Your task to perform on an android device: See recent photos Image 0: 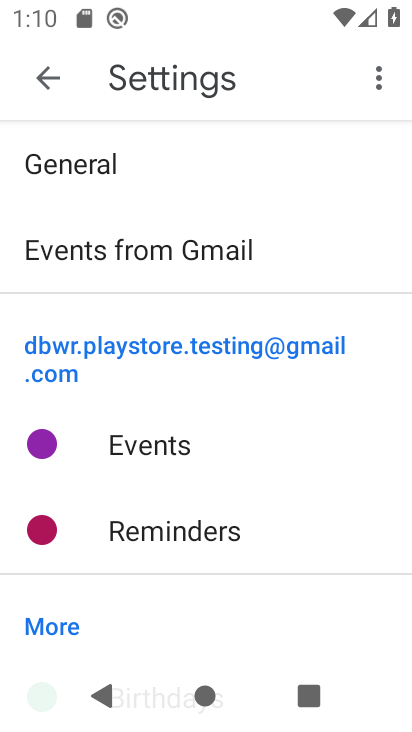
Step 0: press home button
Your task to perform on an android device: See recent photos Image 1: 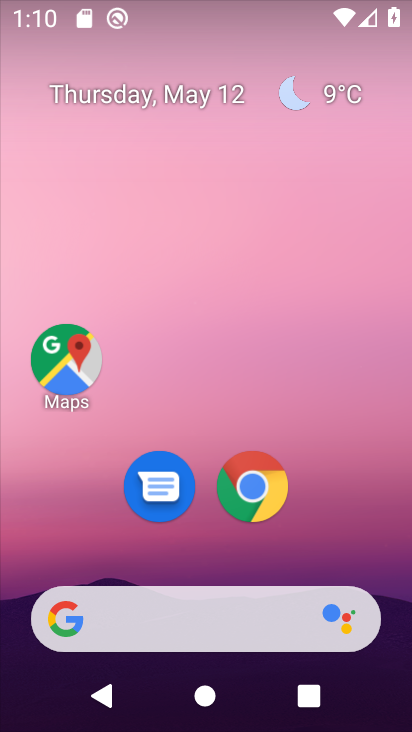
Step 1: drag from (135, 586) to (203, 133)
Your task to perform on an android device: See recent photos Image 2: 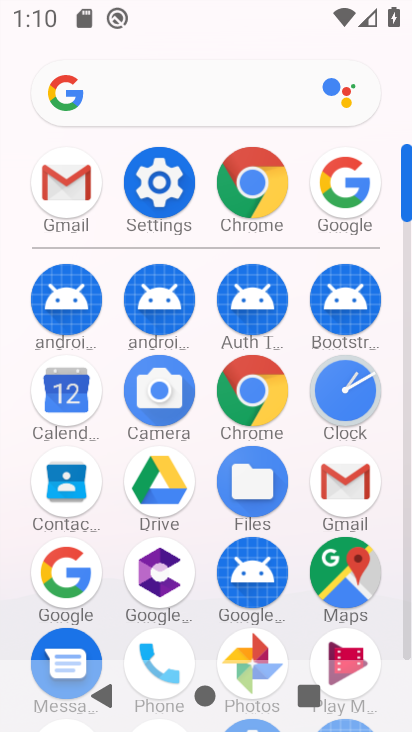
Step 2: drag from (206, 550) to (246, 229)
Your task to perform on an android device: See recent photos Image 3: 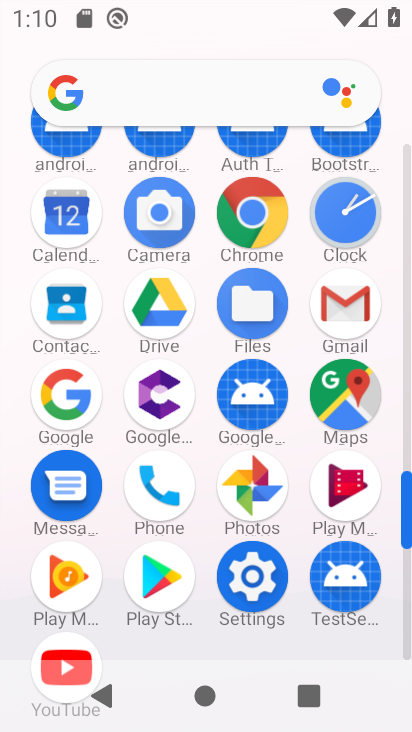
Step 3: click (256, 487)
Your task to perform on an android device: See recent photos Image 4: 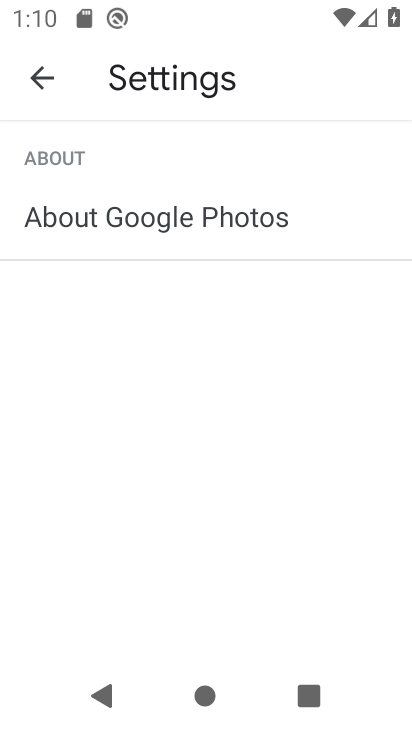
Step 4: click (115, 220)
Your task to perform on an android device: See recent photos Image 5: 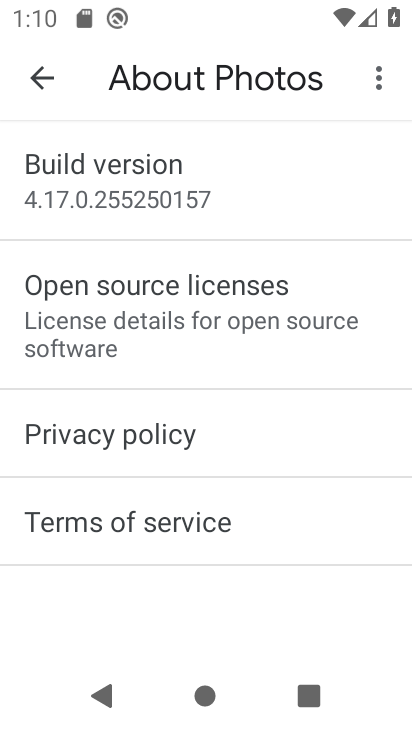
Step 5: click (44, 71)
Your task to perform on an android device: See recent photos Image 6: 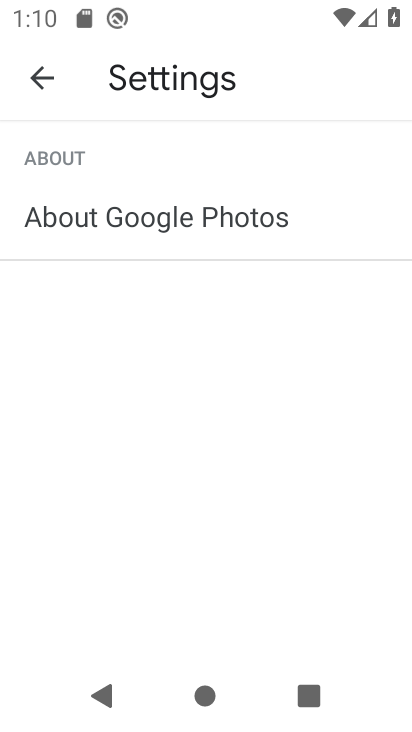
Step 6: click (43, 75)
Your task to perform on an android device: See recent photos Image 7: 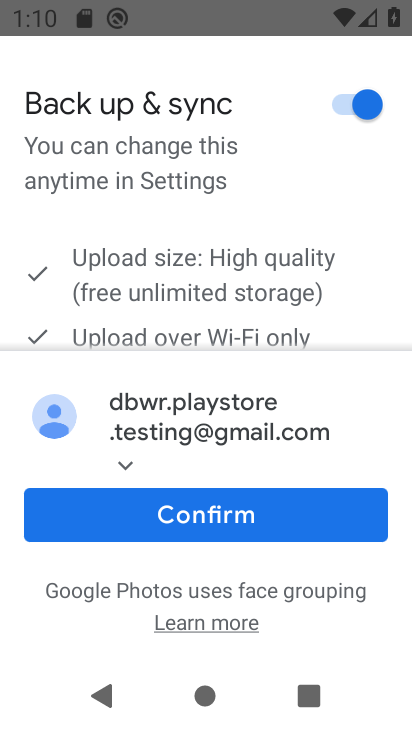
Step 7: click (168, 529)
Your task to perform on an android device: See recent photos Image 8: 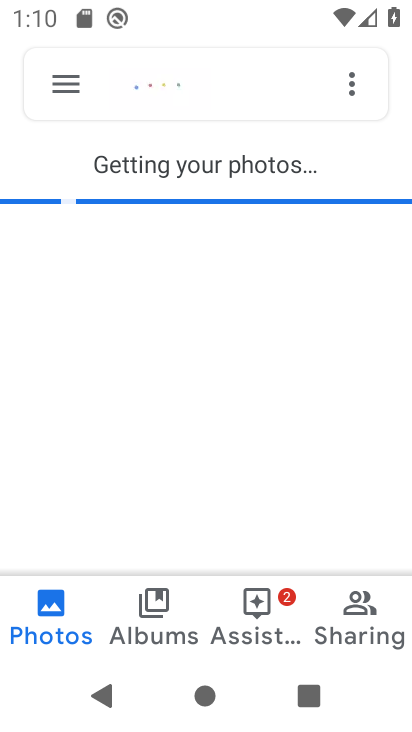
Step 8: click (69, 81)
Your task to perform on an android device: See recent photos Image 9: 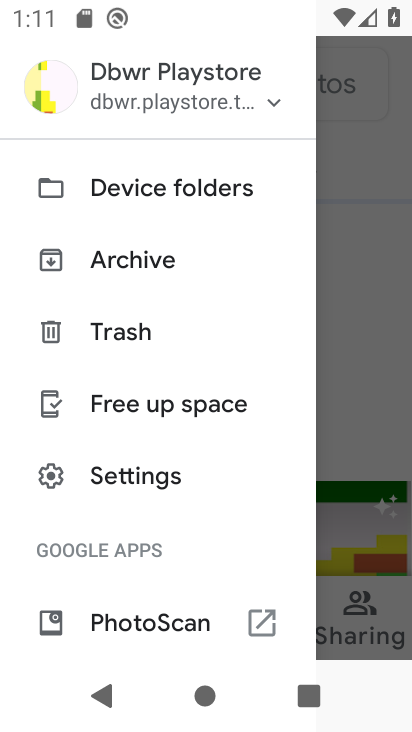
Step 9: click (366, 374)
Your task to perform on an android device: See recent photos Image 10: 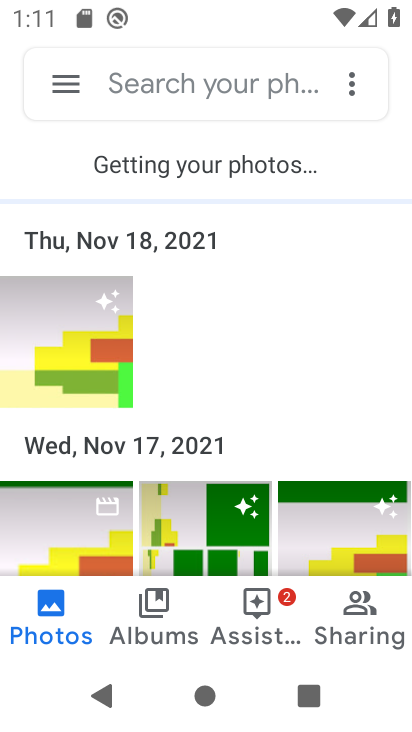
Step 10: click (369, 161)
Your task to perform on an android device: See recent photos Image 11: 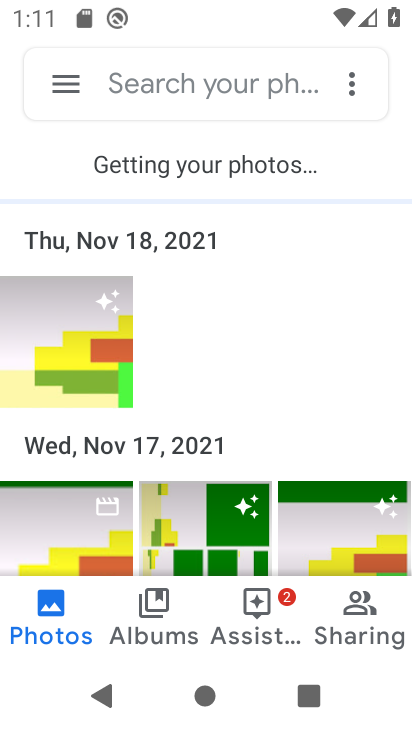
Step 11: click (112, 352)
Your task to perform on an android device: See recent photos Image 12: 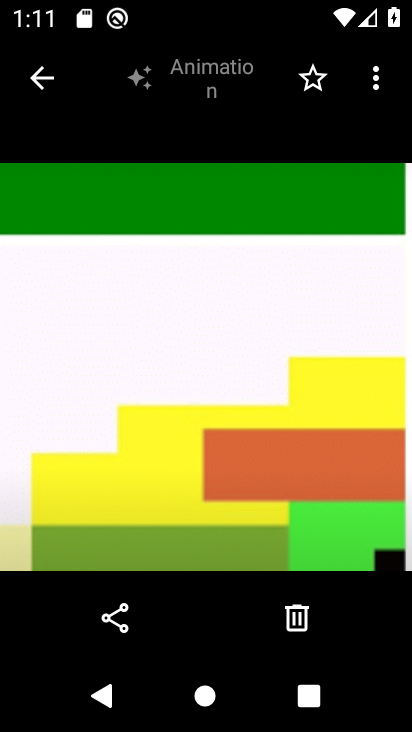
Step 12: task complete